Your task to perform on an android device: move a message to another label in the gmail app Image 0: 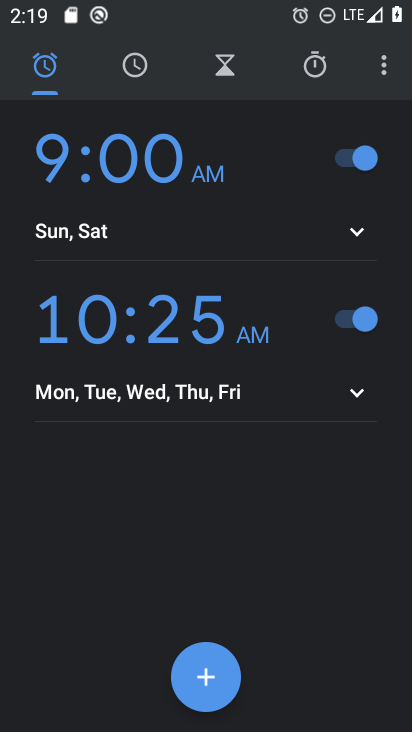
Step 0: press home button
Your task to perform on an android device: move a message to another label in the gmail app Image 1: 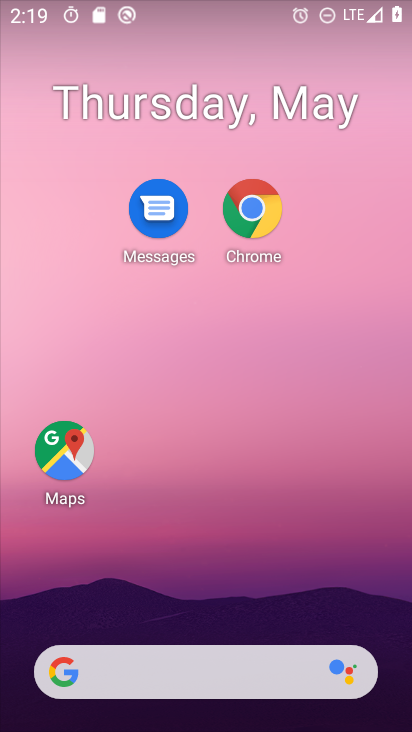
Step 1: drag from (201, 605) to (185, 87)
Your task to perform on an android device: move a message to another label in the gmail app Image 2: 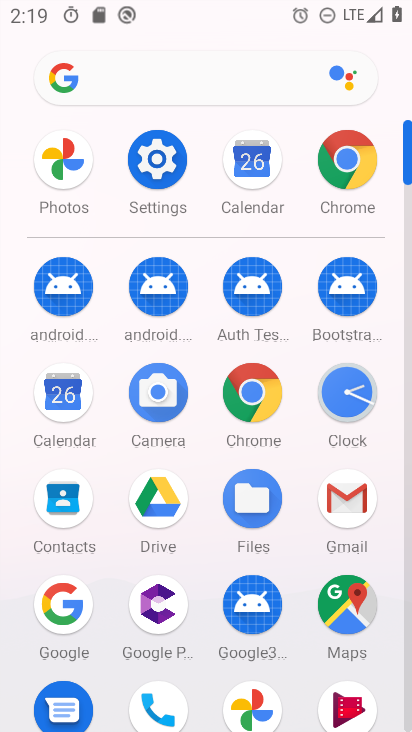
Step 2: click (339, 529)
Your task to perform on an android device: move a message to another label in the gmail app Image 3: 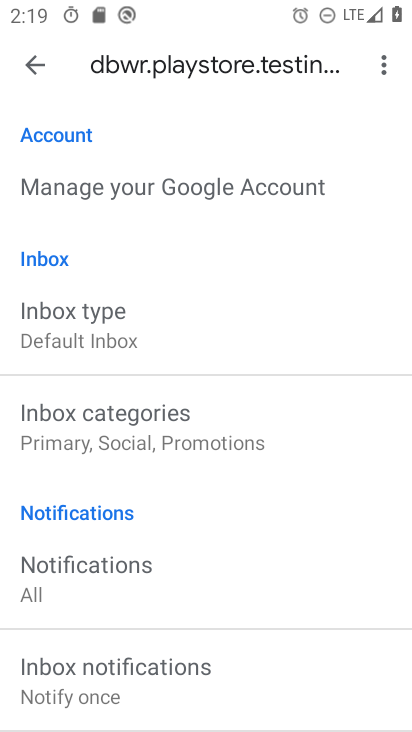
Step 3: click (37, 69)
Your task to perform on an android device: move a message to another label in the gmail app Image 4: 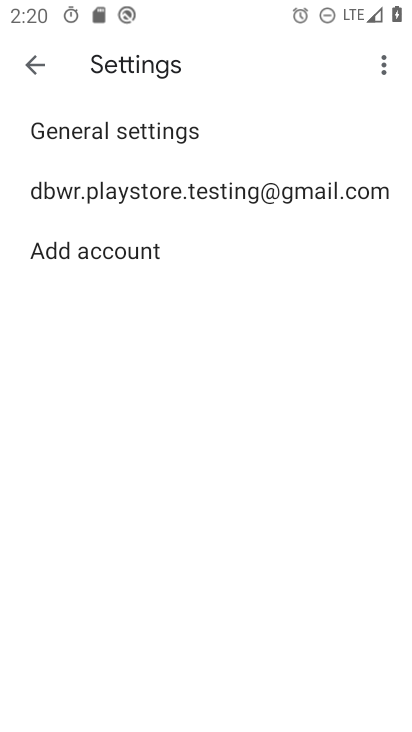
Step 4: click (30, 68)
Your task to perform on an android device: move a message to another label in the gmail app Image 5: 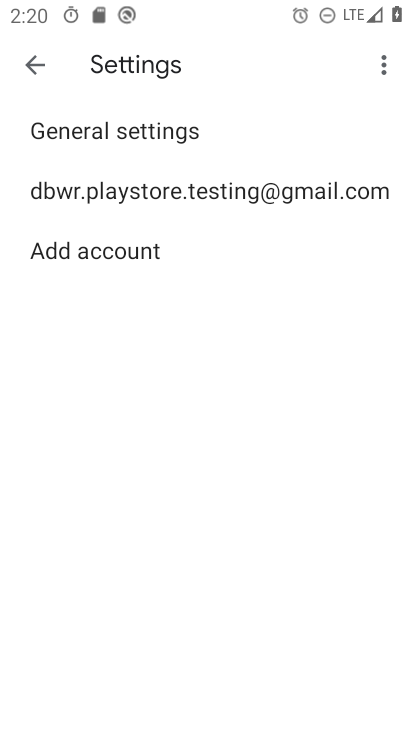
Step 5: click (32, 68)
Your task to perform on an android device: move a message to another label in the gmail app Image 6: 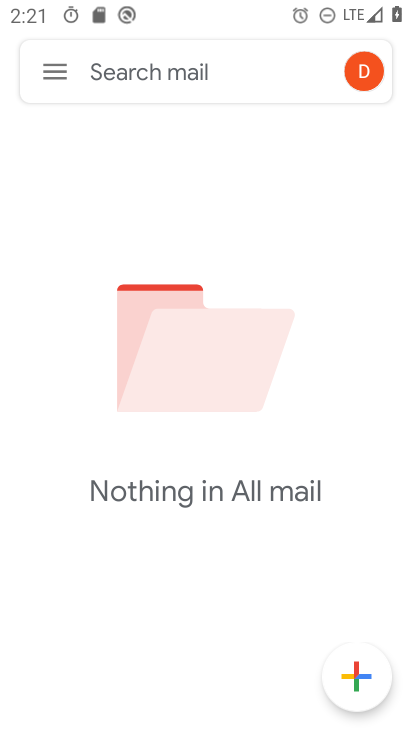
Step 6: task complete